Your task to perform on an android device: Open Google Maps and go to "Timeline" Image 0: 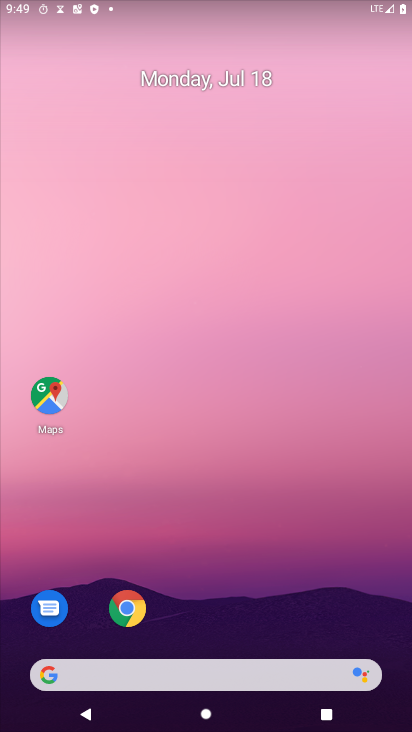
Step 0: click (53, 397)
Your task to perform on an android device: Open Google Maps and go to "Timeline" Image 1: 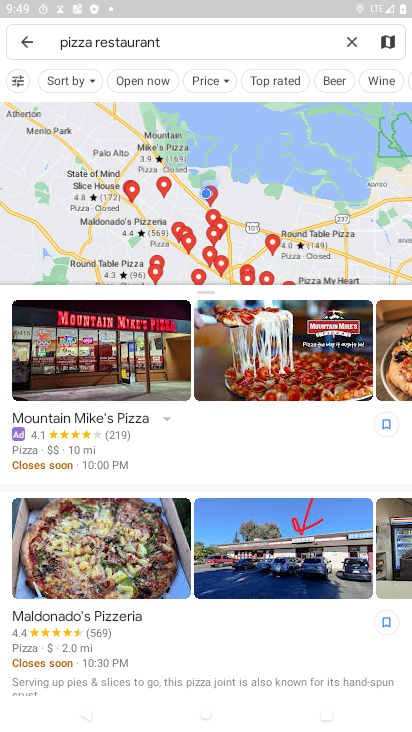
Step 1: click (24, 37)
Your task to perform on an android device: Open Google Maps and go to "Timeline" Image 2: 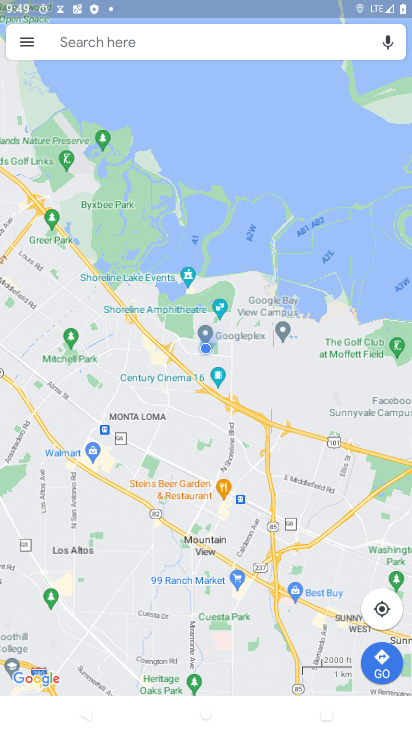
Step 2: click (24, 37)
Your task to perform on an android device: Open Google Maps and go to "Timeline" Image 3: 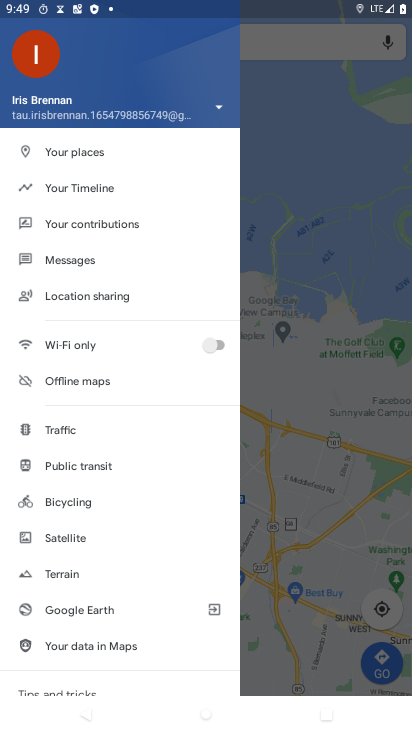
Step 3: click (79, 187)
Your task to perform on an android device: Open Google Maps and go to "Timeline" Image 4: 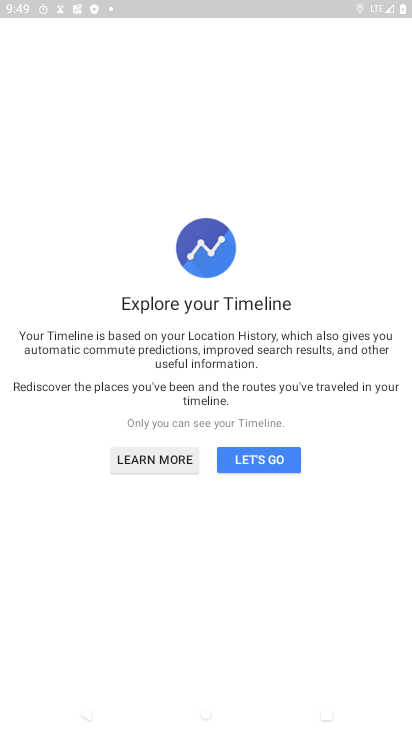
Step 4: click (241, 446)
Your task to perform on an android device: Open Google Maps and go to "Timeline" Image 5: 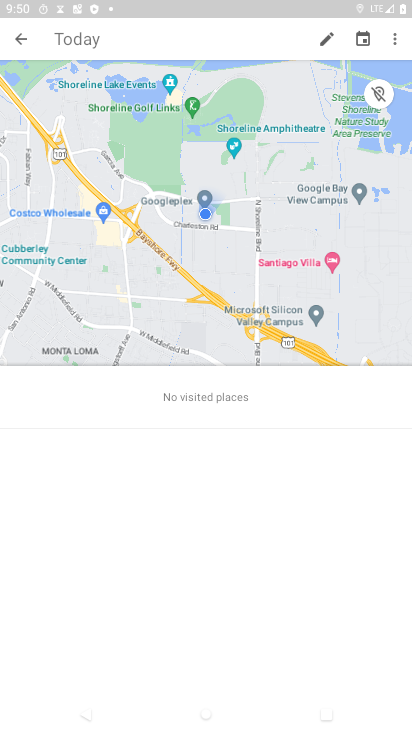
Step 5: task complete